Your task to perform on an android device: Search for pizza restaurants on Maps Image 0: 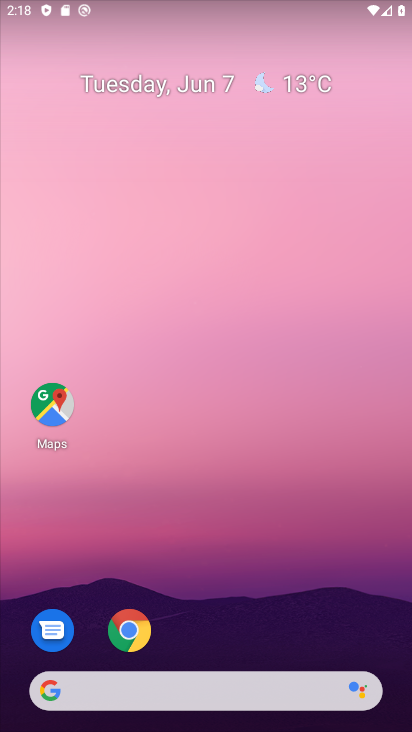
Step 0: click (44, 413)
Your task to perform on an android device: Search for pizza restaurants on Maps Image 1: 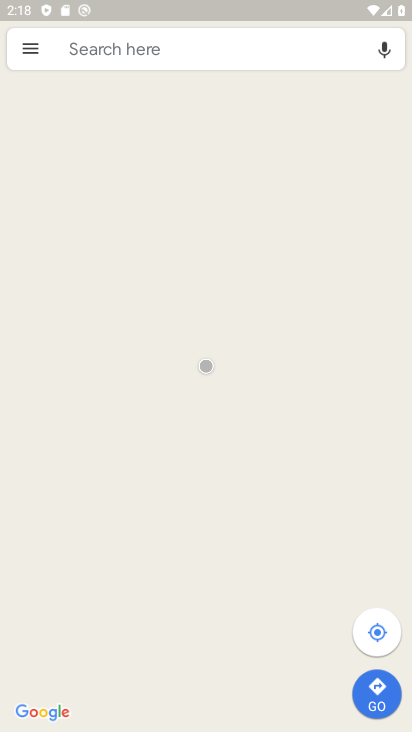
Step 1: click (145, 44)
Your task to perform on an android device: Search for pizza restaurants on Maps Image 2: 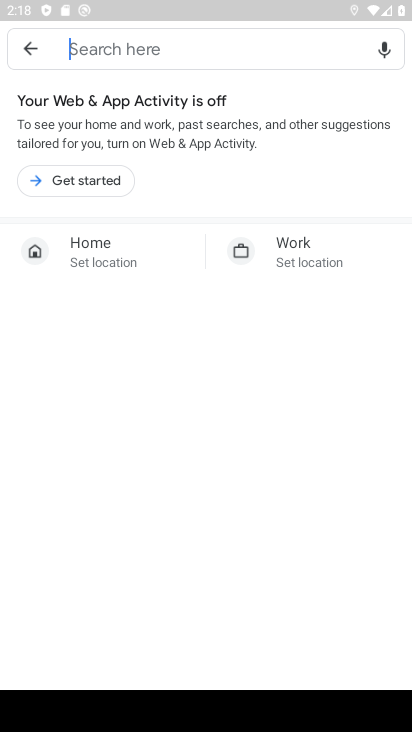
Step 2: click (133, 39)
Your task to perform on an android device: Search for pizza restaurants on Maps Image 3: 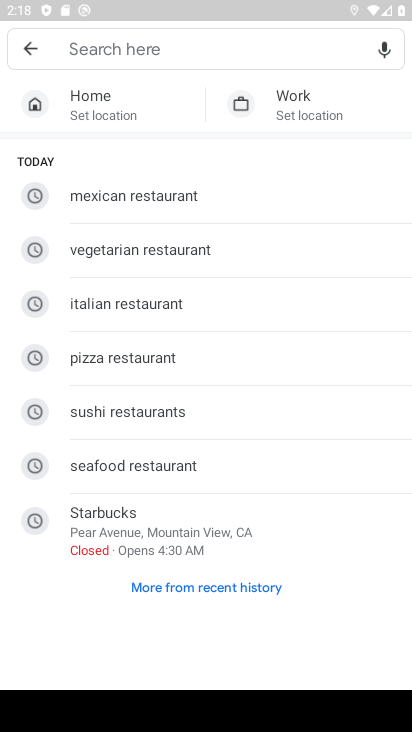
Step 3: click (195, 344)
Your task to perform on an android device: Search for pizza restaurants on Maps Image 4: 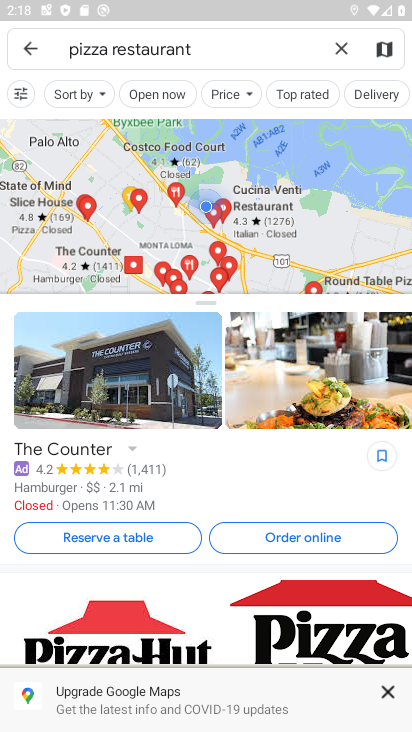
Step 4: task complete